Your task to perform on an android device: turn off javascript in the chrome app Image 0: 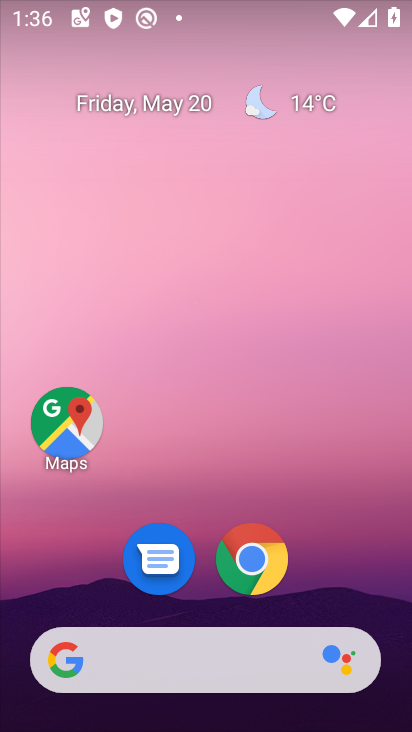
Step 0: click (279, 569)
Your task to perform on an android device: turn off javascript in the chrome app Image 1: 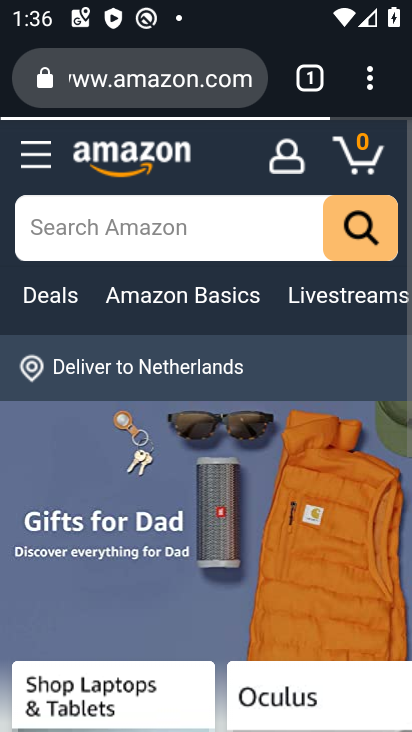
Step 1: click (367, 65)
Your task to perform on an android device: turn off javascript in the chrome app Image 2: 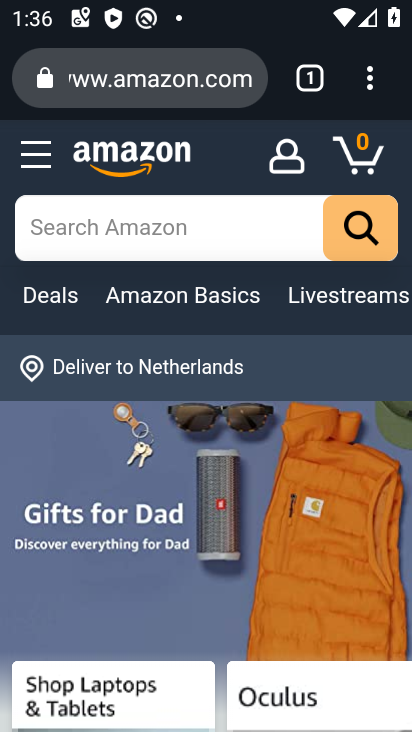
Step 2: click (367, 65)
Your task to perform on an android device: turn off javascript in the chrome app Image 3: 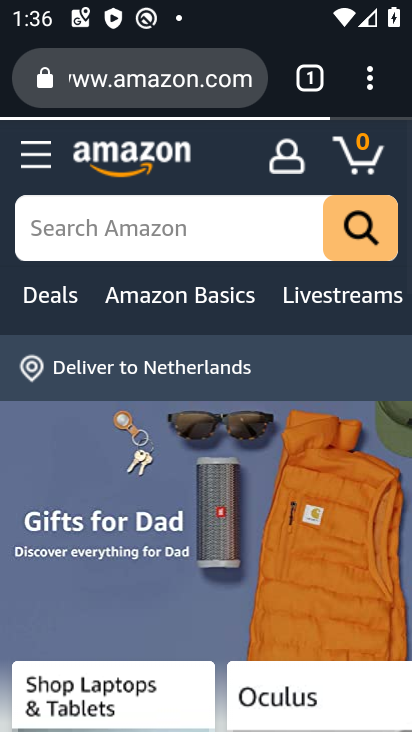
Step 3: click (379, 81)
Your task to perform on an android device: turn off javascript in the chrome app Image 4: 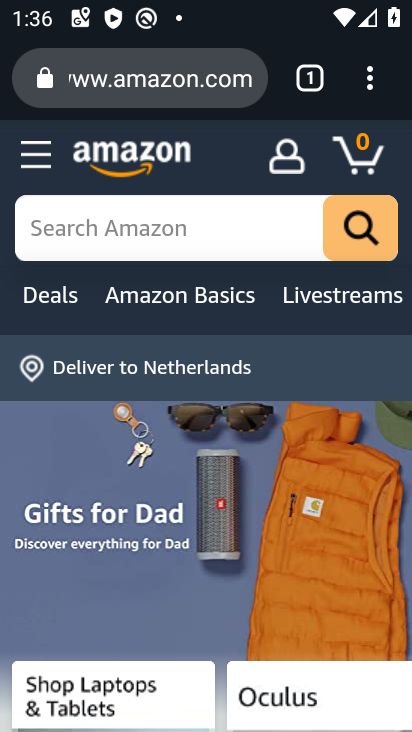
Step 4: click (377, 91)
Your task to perform on an android device: turn off javascript in the chrome app Image 5: 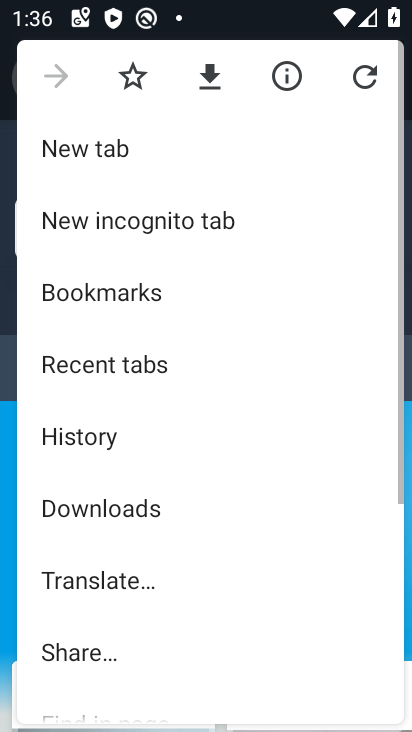
Step 5: drag from (96, 605) to (112, 276)
Your task to perform on an android device: turn off javascript in the chrome app Image 6: 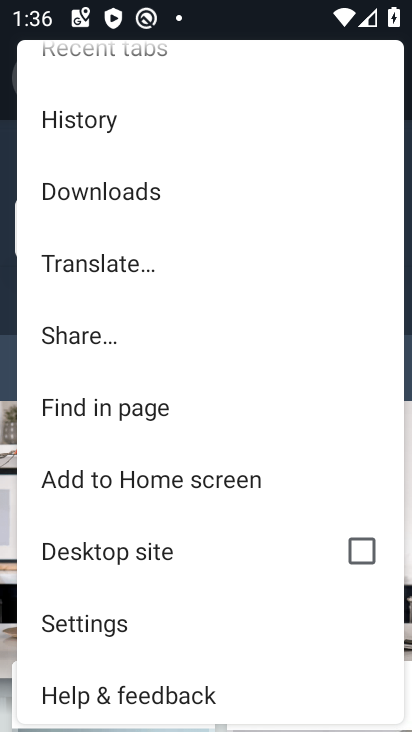
Step 6: click (109, 631)
Your task to perform on an android device: turn off javascript in the chrome app Image 7: 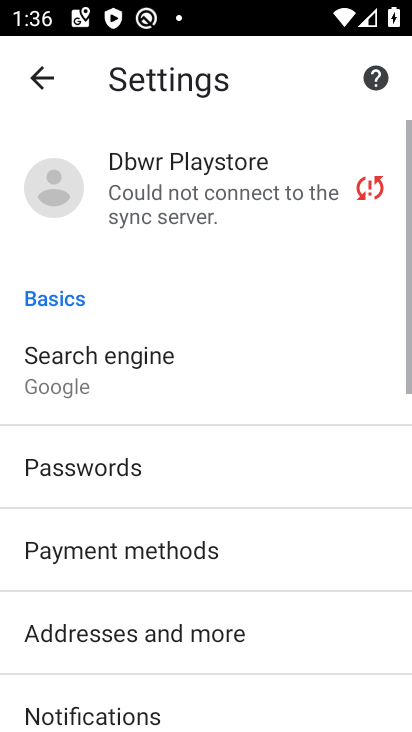
Step 7: drag from (109, 631) to (65, 168)
Your task to perform on an android device: turn off javascript in the chrome app Image 8: 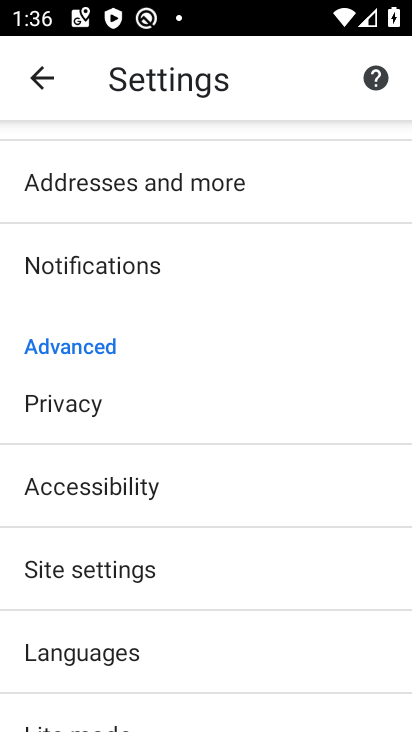
Step 8: drag from (164, 594) to (161, 271)
Your task to perform on an android device: turn off javascript in the chrome app Image 9: 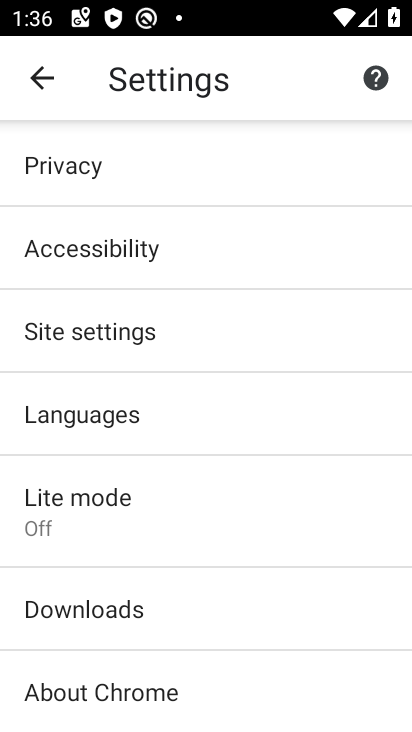
Step 9: click (180, 325)
Your task to perform on an android device: turn off javascript in the chrome app Image 10: 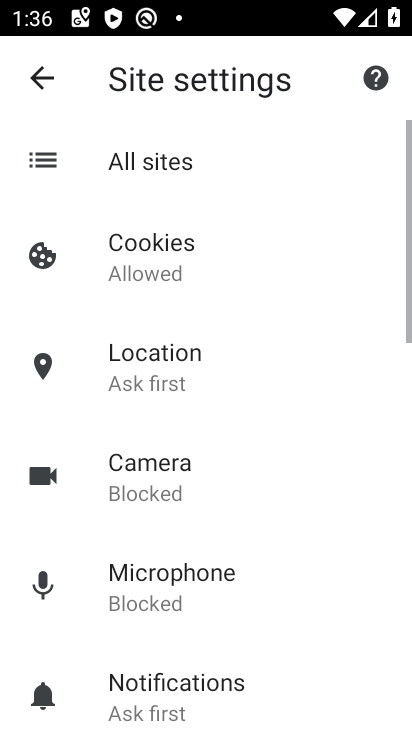
Step 10: drag from (209, 499) to (197, 345)
Your task to perform on an android device: turn off javascript in the chrome app Image 11: 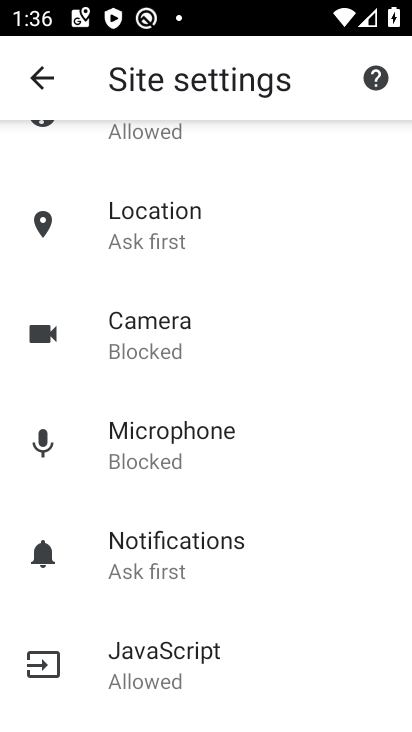
Step 11: click (266, 647)
Your task to perform on an android device: turn off javascript in the chrome app Image 12: 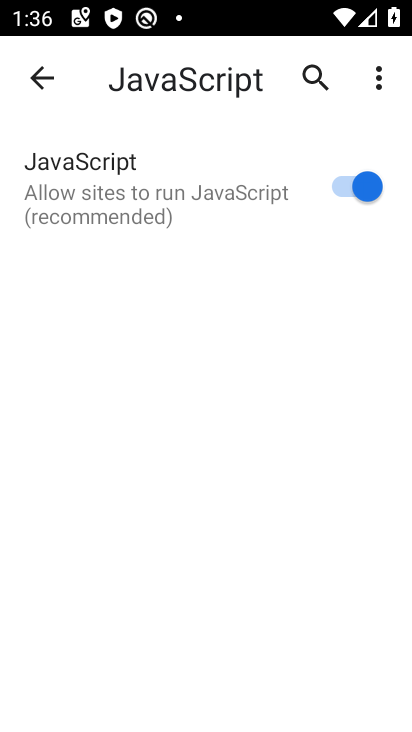
Step 12: click (373, 176)
Your task to perform on an android device: turn off javascript in the chrome app Image 13: 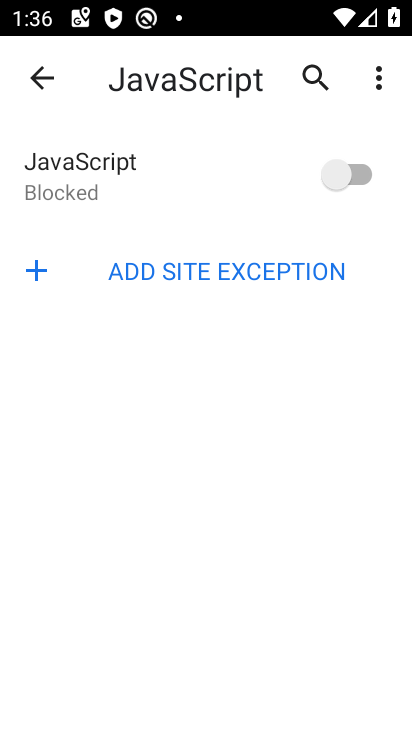
Step 13: task complete